Your task to perform on an android device: turn on bluetooth scan Image 0: 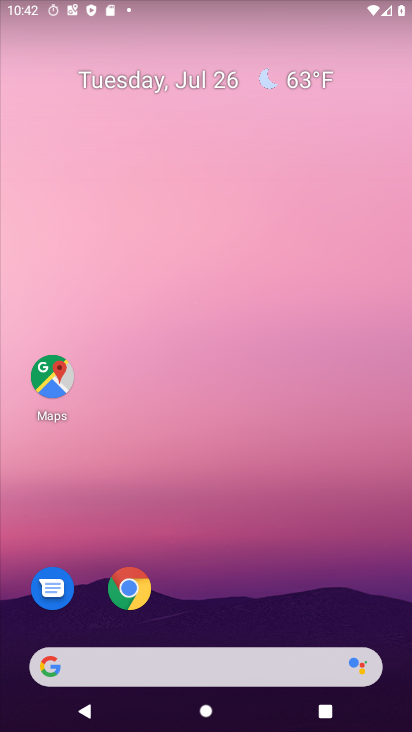
Step 0: drag from (287, 604) to (272, 78)
Your task to perform on an android device: turn on bluetooth scan Image 1: 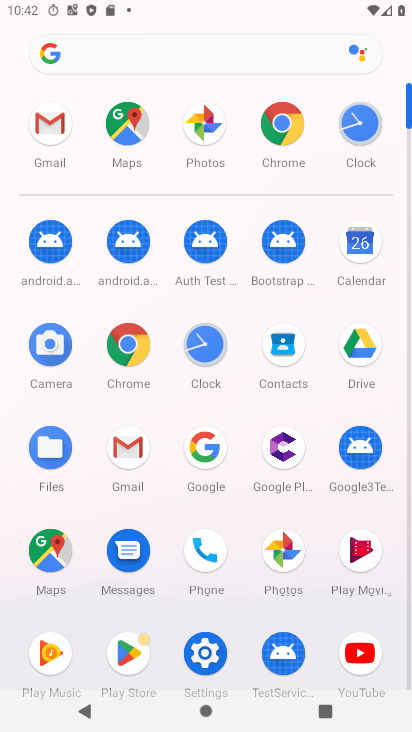
Step 1: click (210, 670)
Your task to perform on an android device: turn on bluetooth scan Image 2: 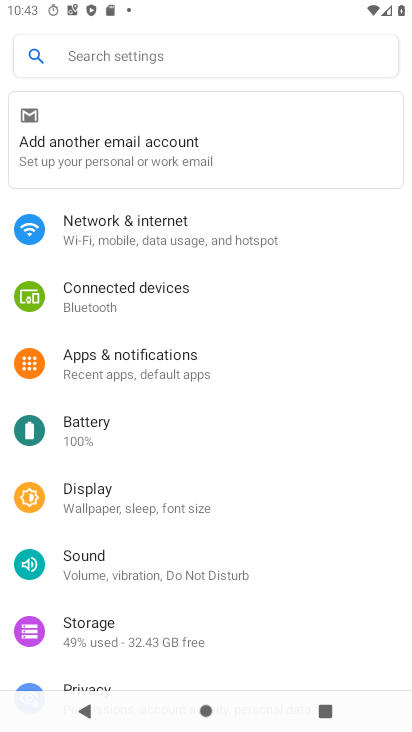
Step 2: drag from (165, 624) to (170, 330)
Your task to perform on an android device: turn on bluetooth scan Image 3: 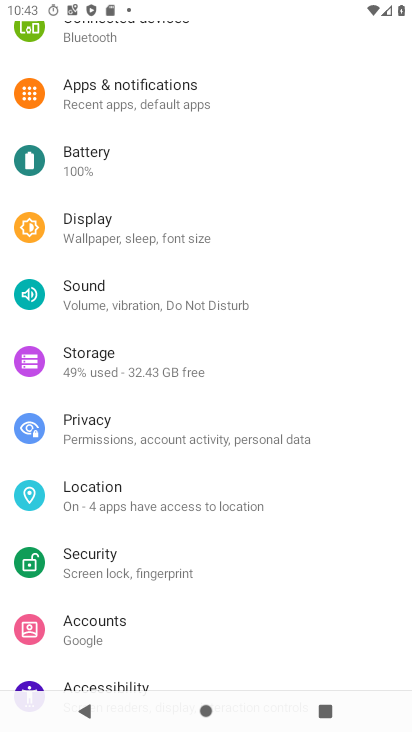
Step 3: click (133, 513)
Your task to perform on an android device: turn on bluetooth scan Image 4: 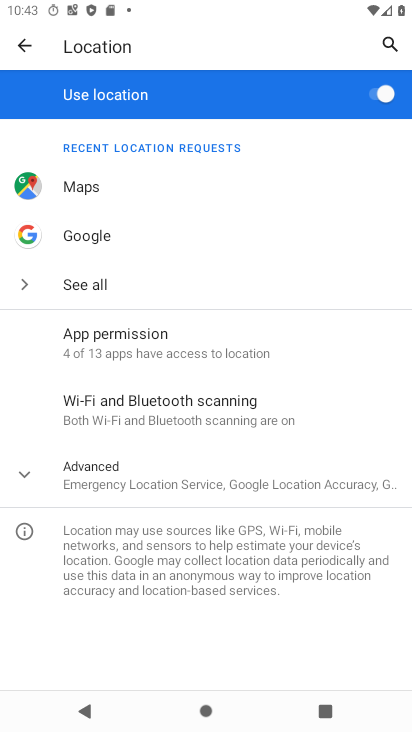
Step 4: click (174, 471)
Your task to perform on an android device: turn on bluetooth scan Image 5: 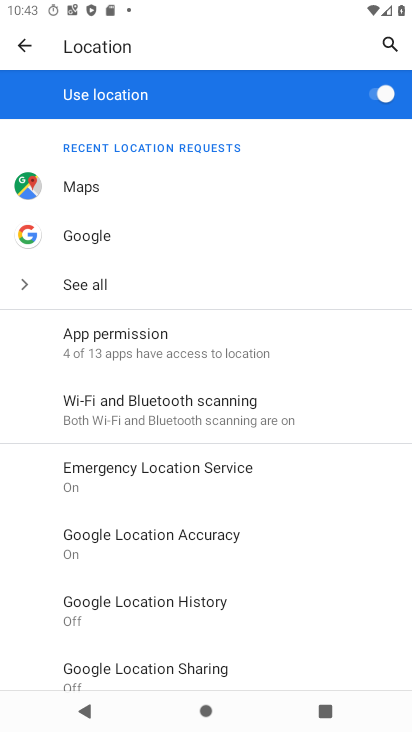
Step 5: click (152, 401)
Your task to perform on an android device: turn on bluetooth scan Image 6: 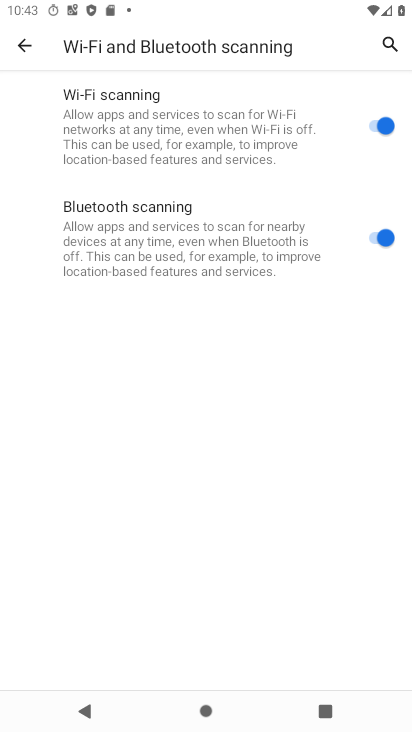
Step 6: task complete